Your task to perform on an android device: turn off wifi Image 0: 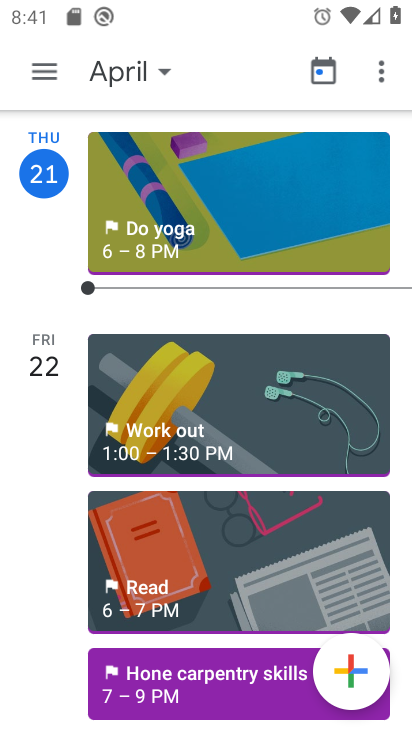
Step 0: press home button
Your task to perform on an android device: turn off wifi Image 1: 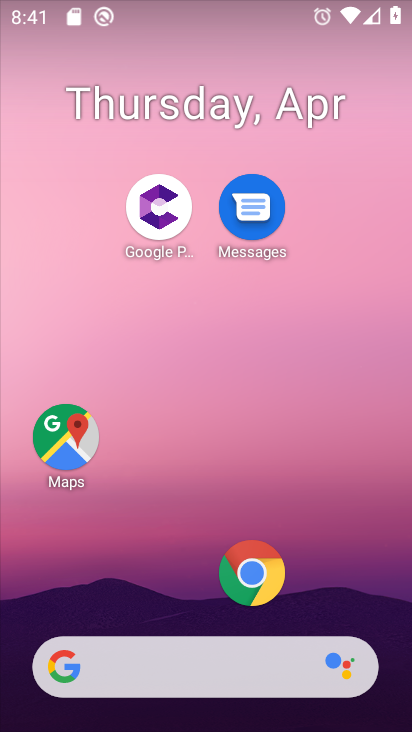
Step 1: drag from (257, 6) to (224, 524)
Your task to perform on an android device: turn off wifi Image 2: 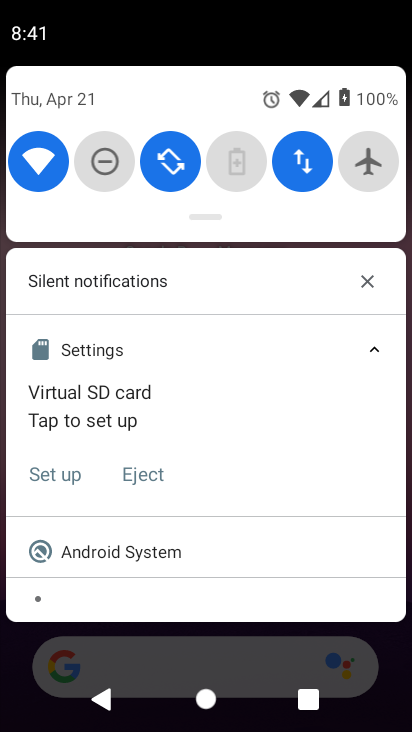
Step 2: click (37, 154)
Your task to perform on an android device: turn off wifi Image 3: 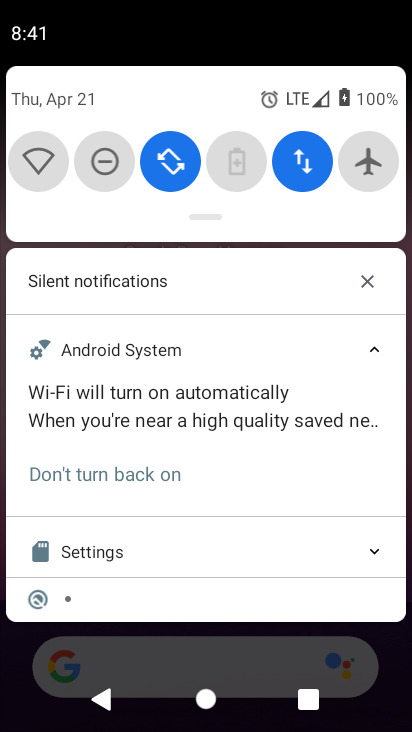
Step 3: task complete